Your task to perform on an android device: open app "Google Keep" Image 0: 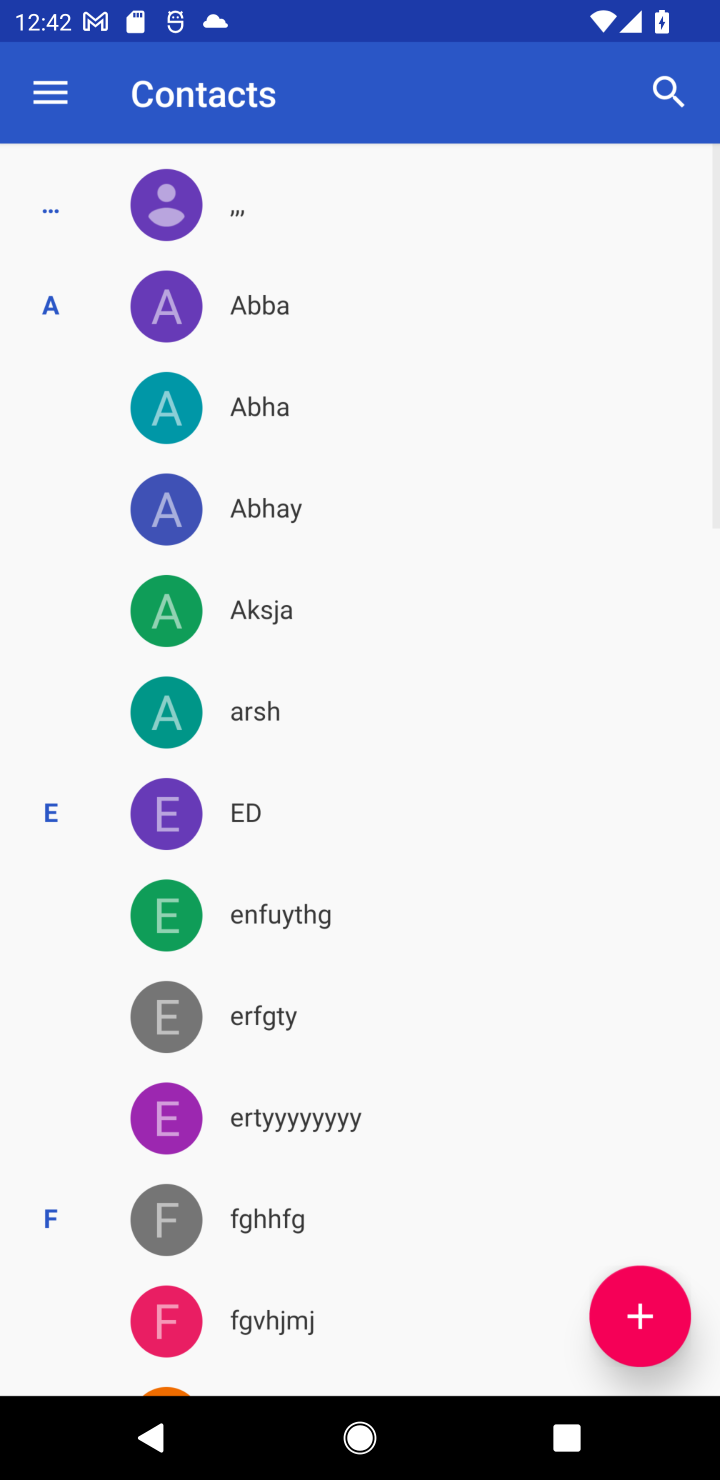
Step 0: press home button
Your task to perform on an android device: open app "Google Keep" Image 1: 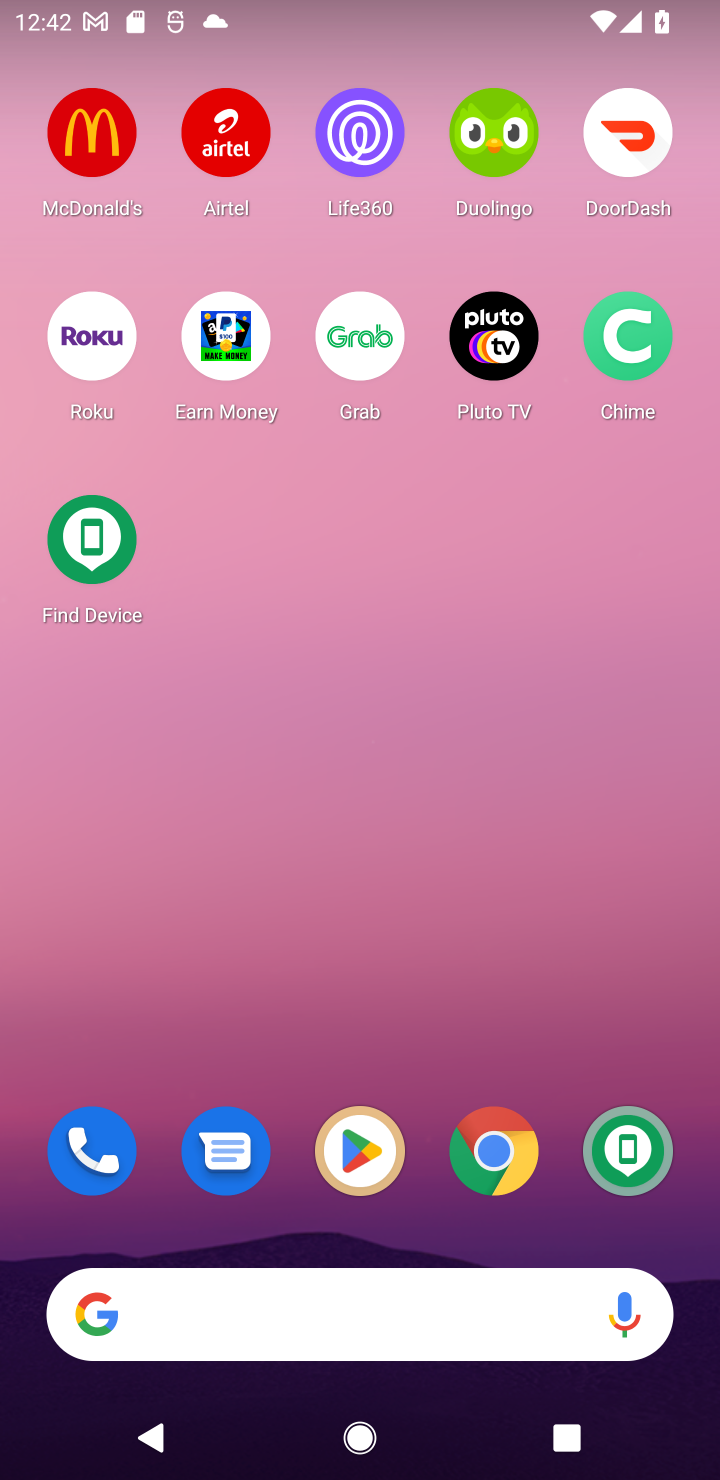
Step 1: click (355, 1159)
Your task to perform on an android device: open app "Google Keep" Image 2: 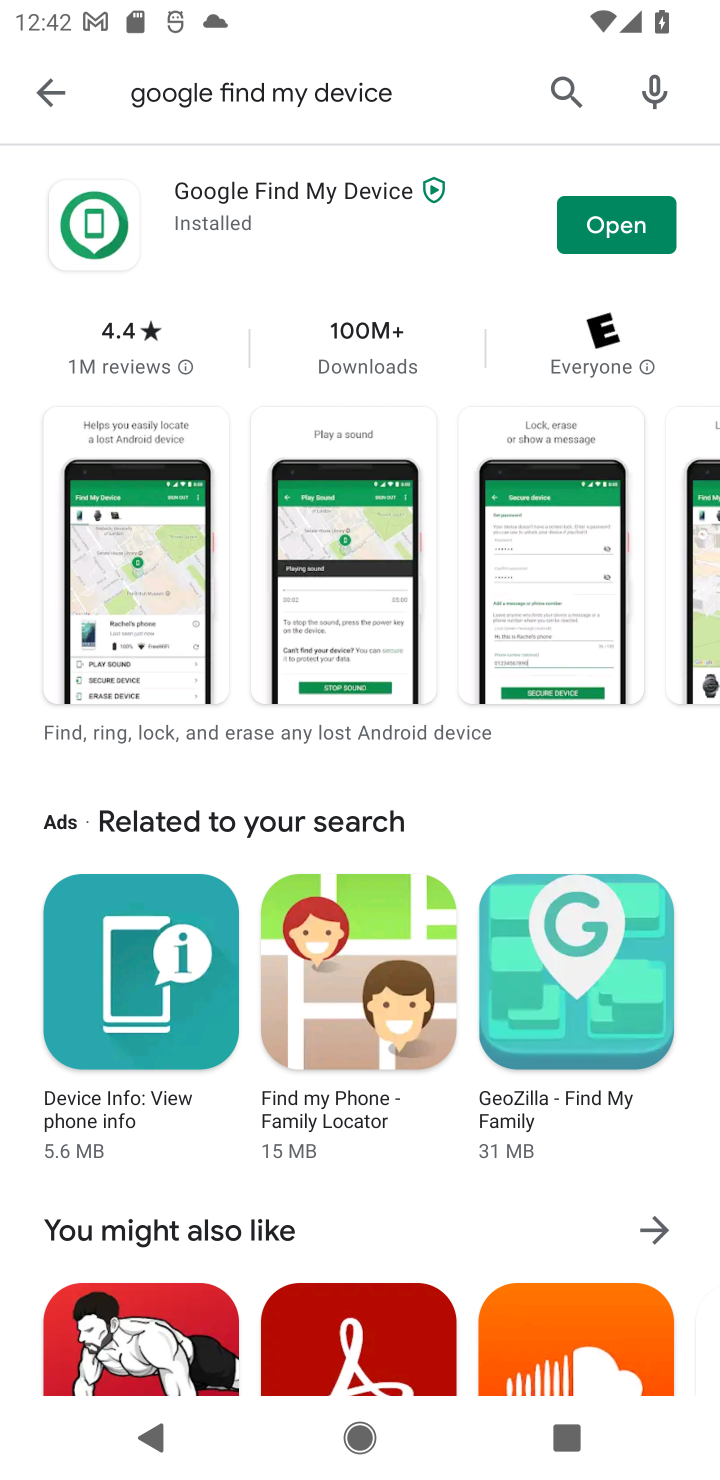
Step 2: click (56, 96)
Your task to perform on an android device: open app "Google Keep" Image 3: 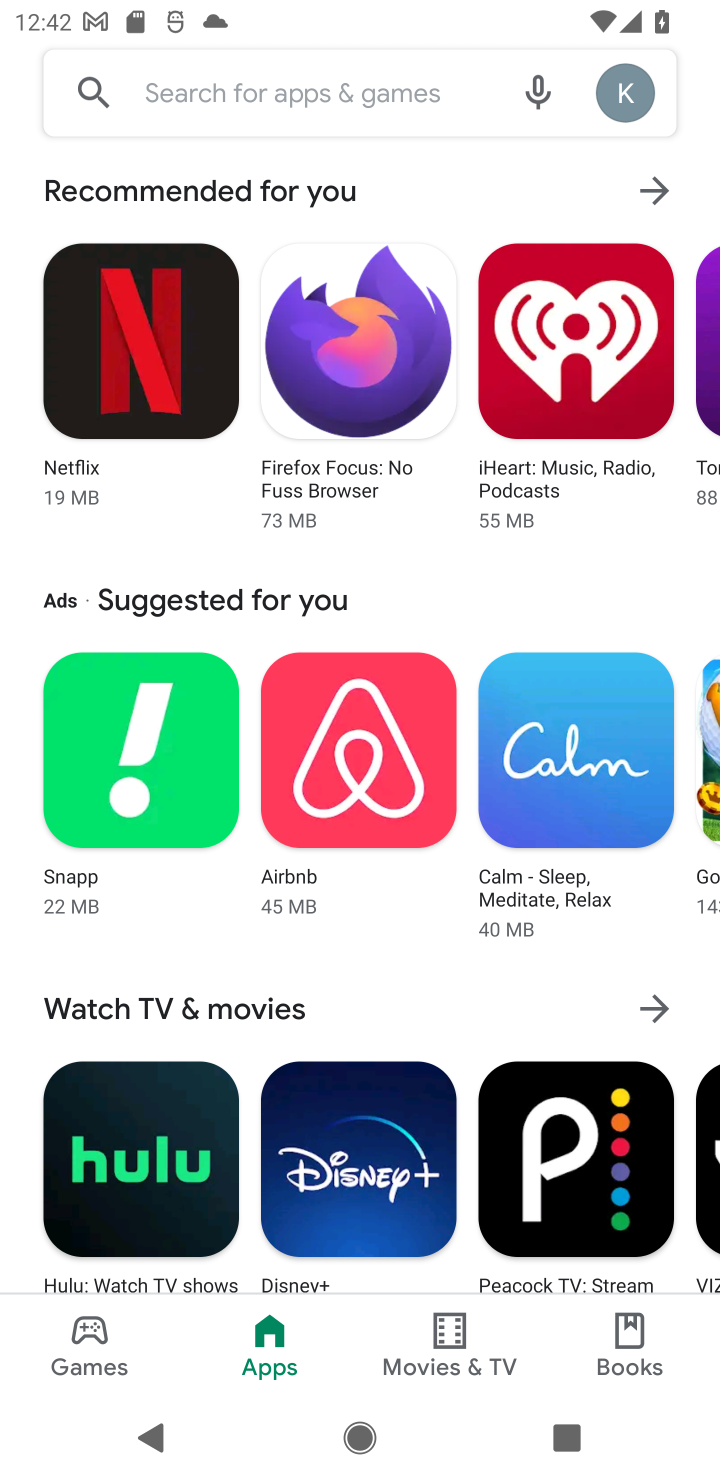
Step 3: click (317, 62)
Your task to perform on an android device: open app "Google Keep" Image 4: 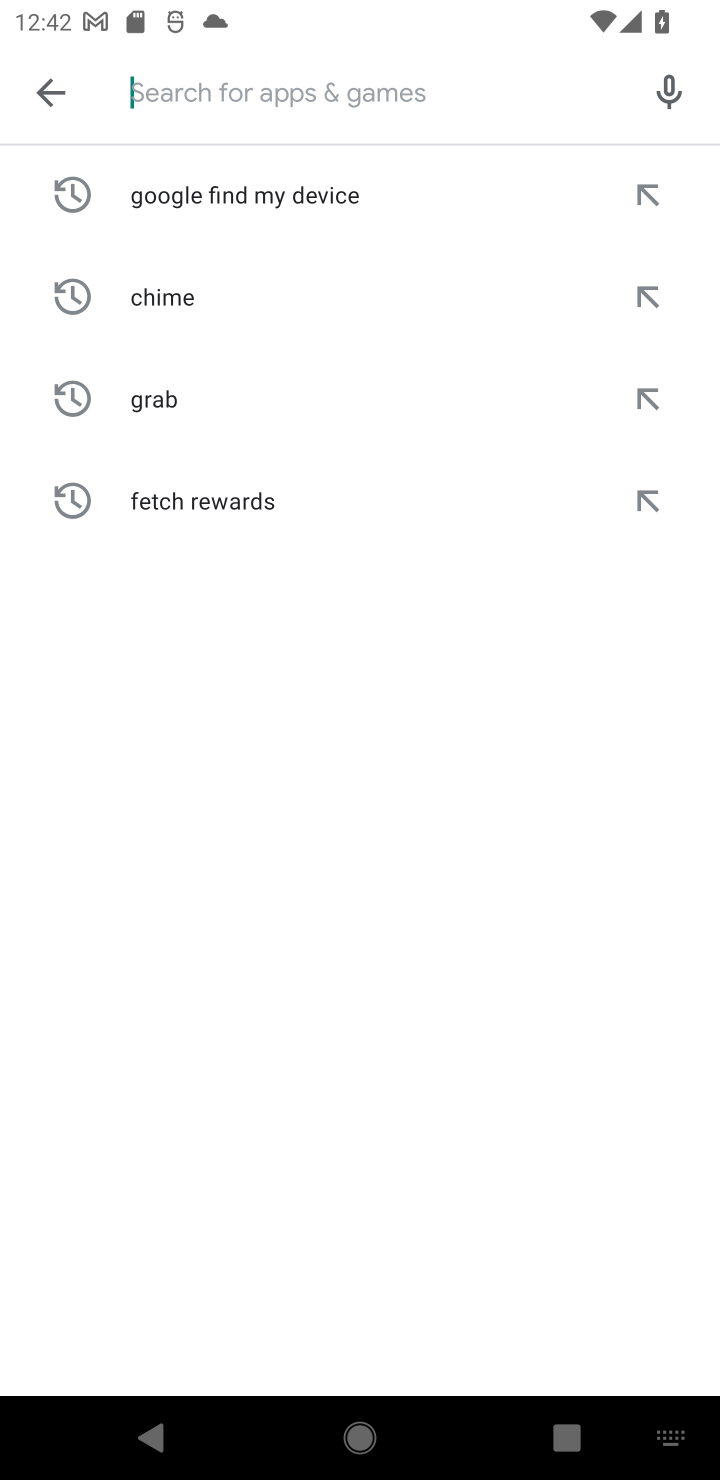
Step 4: type "Google Keep"
Your task to perform on an android device: open app "Google Keep" Image 5: 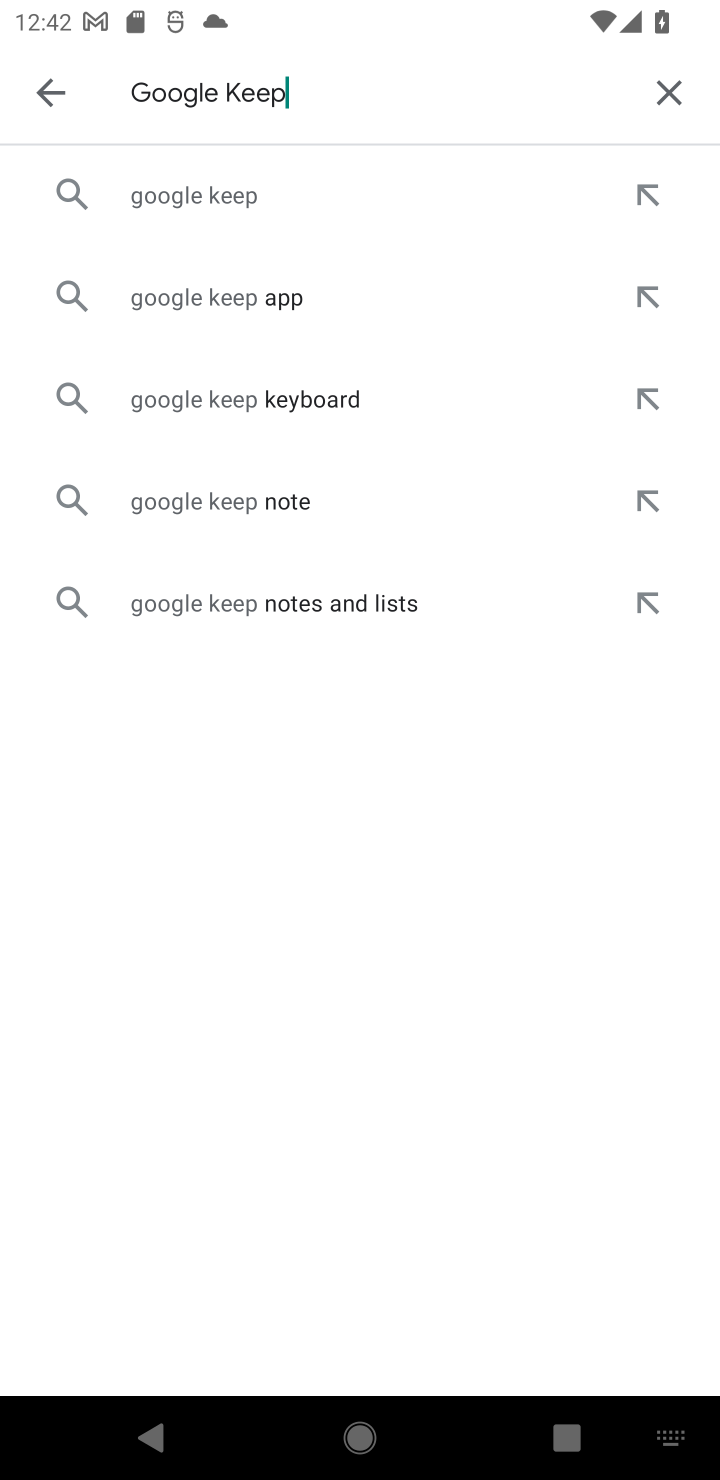
Step 5: click (229, 182)
Your task to perform on an android device: open app "Google Keep" Image 6: 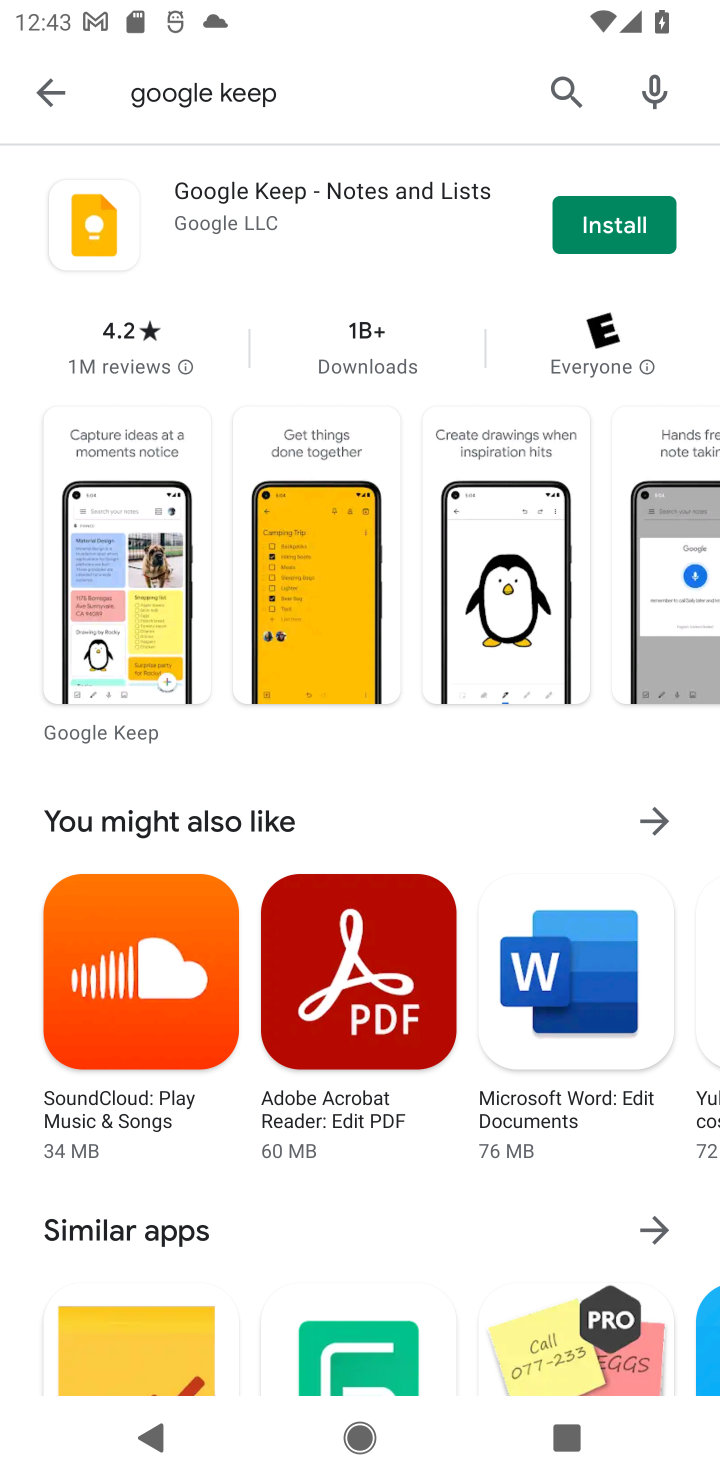
Step 6: click (614, 238)
Your task to perform on an android device: open app "Google Keep" Image 7: 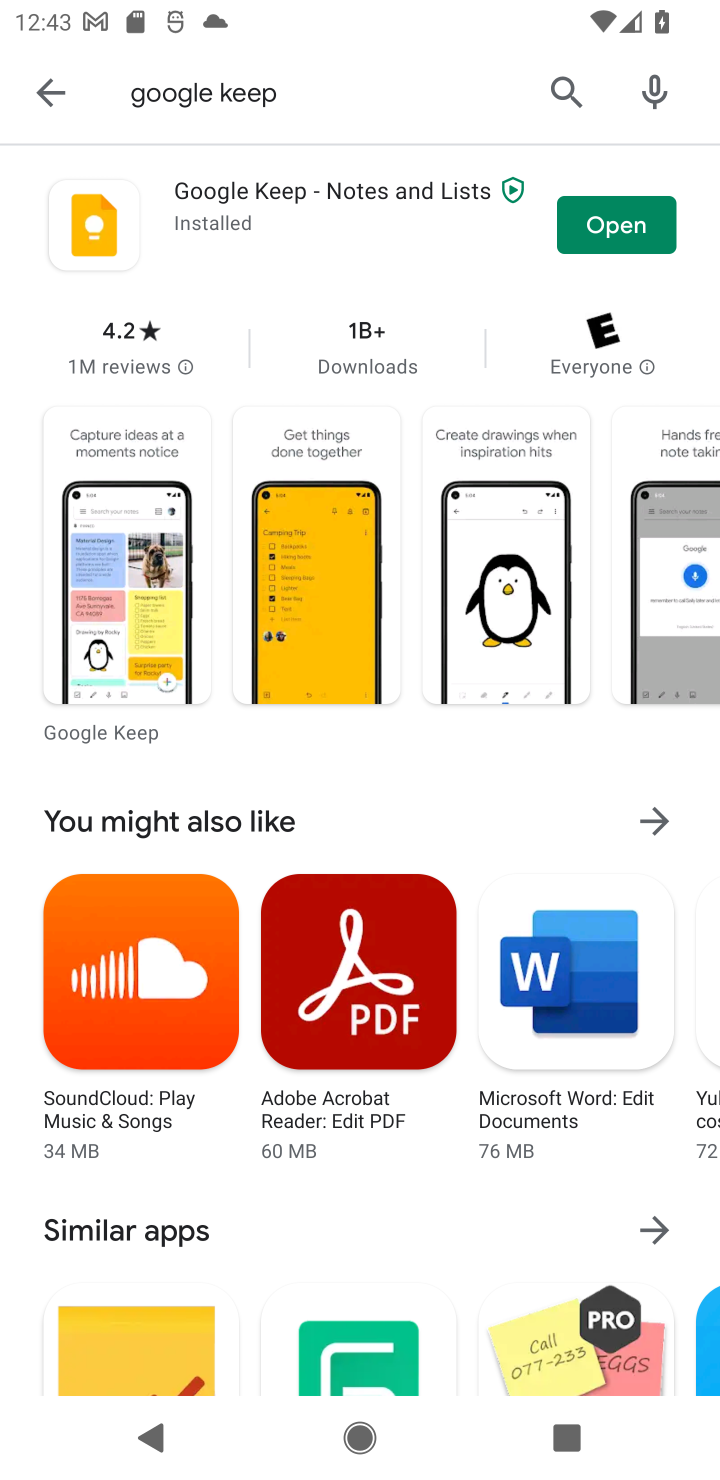
Step 7: click (614, 238)
Your task to perform on an android device: open app "Google Keep" Image 8: 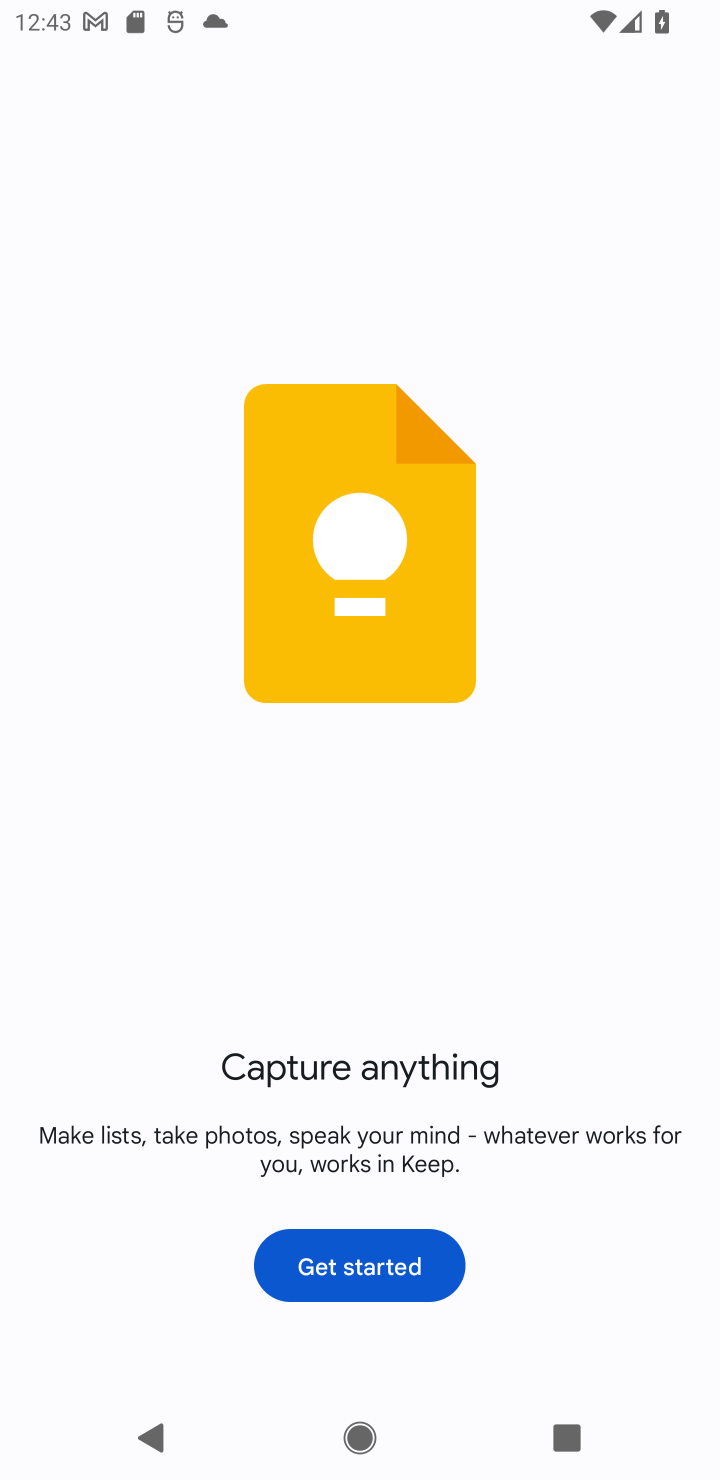
Step 8: task complete